Your task to perform on an android device: Open notification settings Image 0: 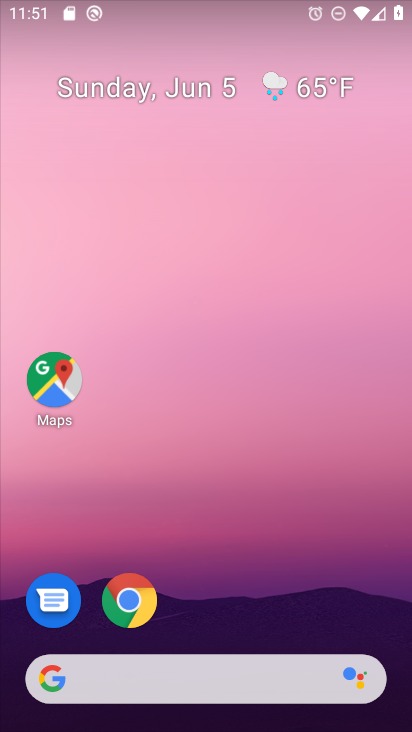
Step 0: drag from (349, 630) to (185, 71)
Your task to perform on an android device: Open notification settings Image 1: 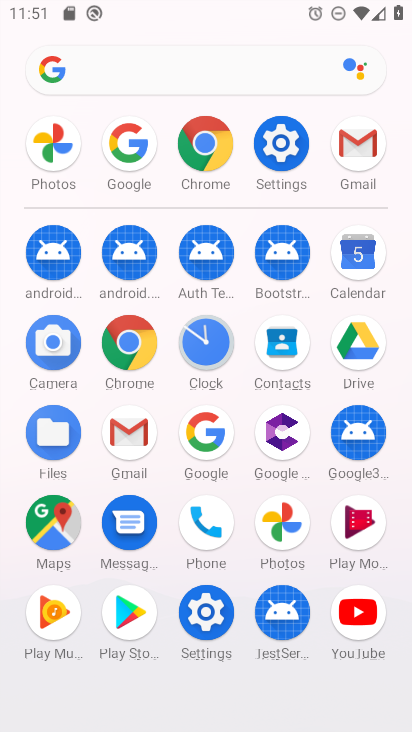
Step 1: click (212, 620)
Your task to perform on an android device: Open notification settings Image 2: 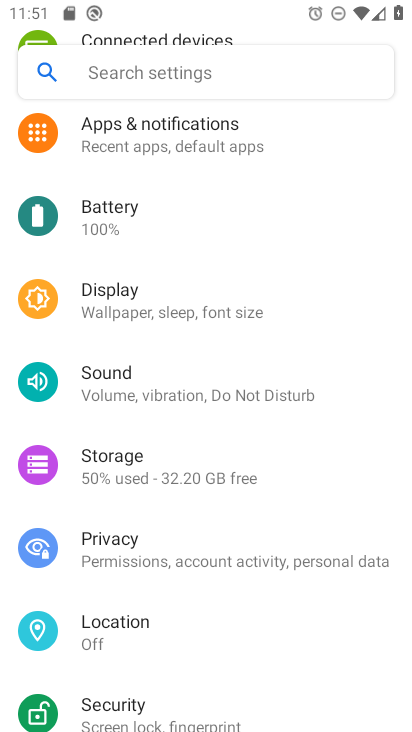
Step 2: click (262, 129)
Your task to perform on an android device: Open notification settings Image 3: 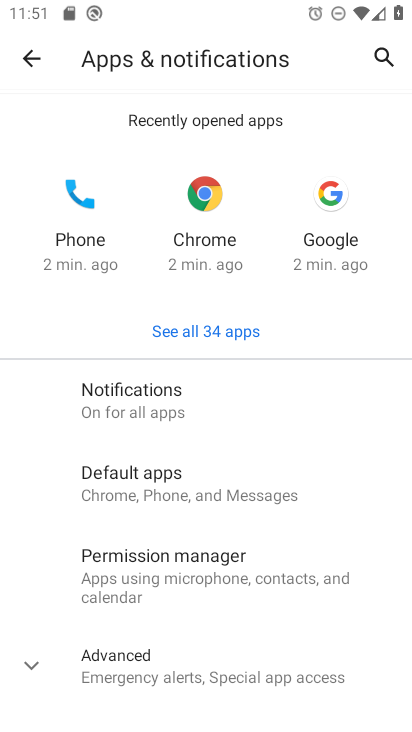
Step 3: click (153, 387)
Your task to perform on an android device: Open notification settings Image 4: 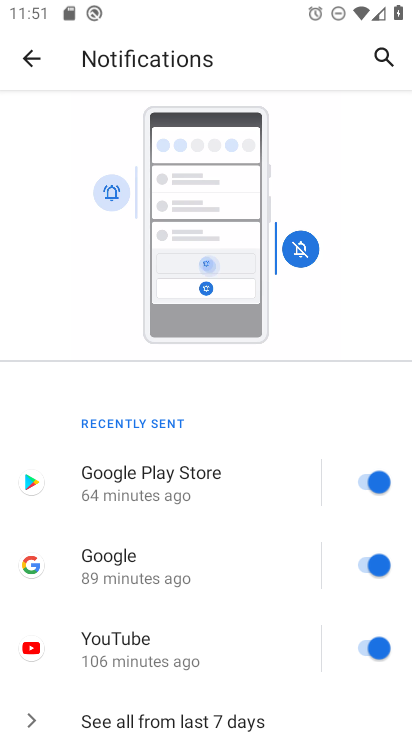
Step 4: task complete